Your task to perform on an android device: turn on the 12-hour format for clock Image 0: 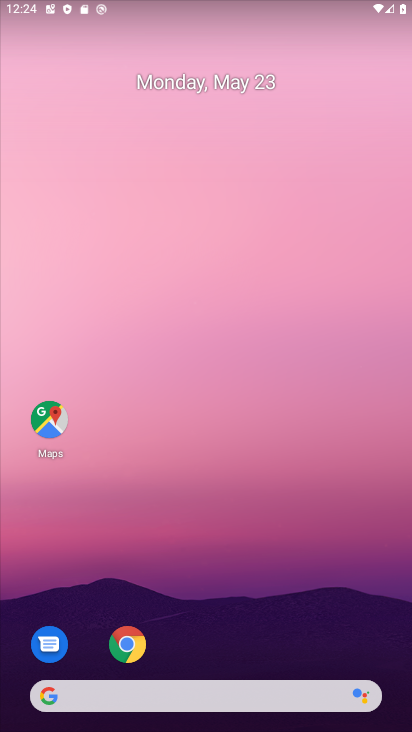
Step 0: drag from (264, 627) to (238, 67)
Your task to perform on an android device: turn on the 12-hour format for clock Image 1: 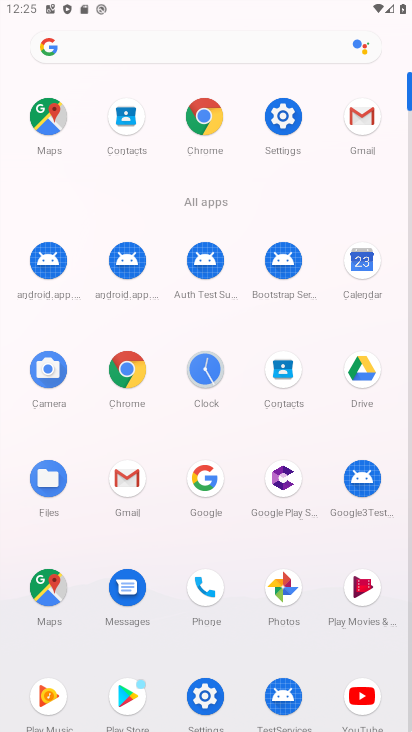
Step 1: click (209, 375)
Your task to perform on an android device: turn on the 12-hour format for clock Image 2: 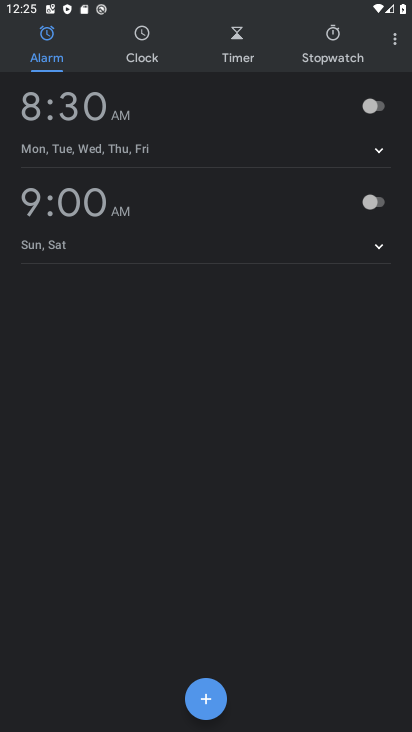
Step 2: click (399, 38)
Your task to perform on an android device: turn on the 12-hour format for clock Image 3: 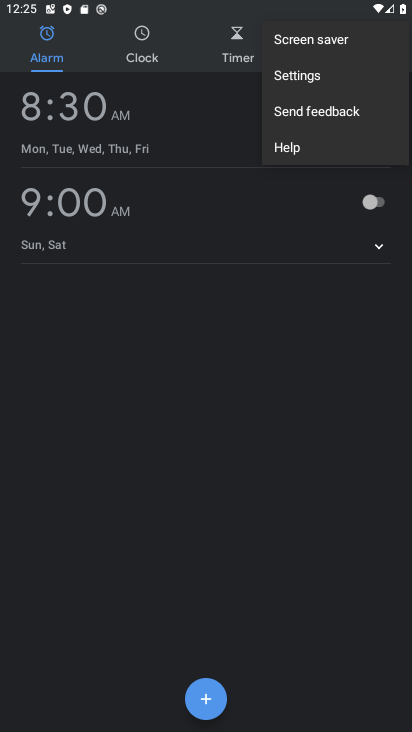
Step 3: click (306, 78)
Your task to perform on an android device: turn on the 12-hour format for clock Image 4: 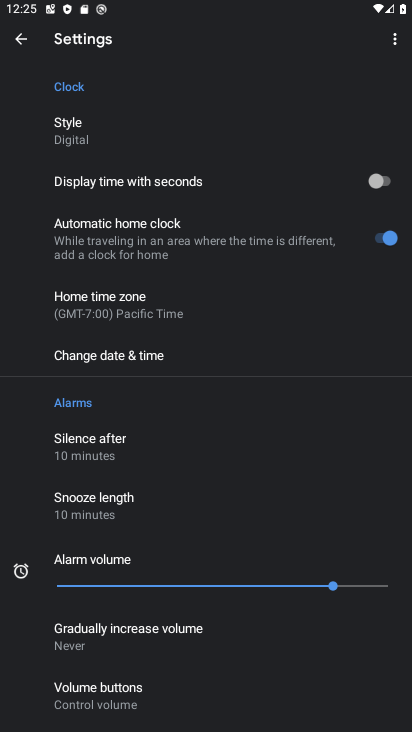
Step 4: click (159, 360)
Your task to perform on an android device: turn on the 12-hour format for clock Image 5: 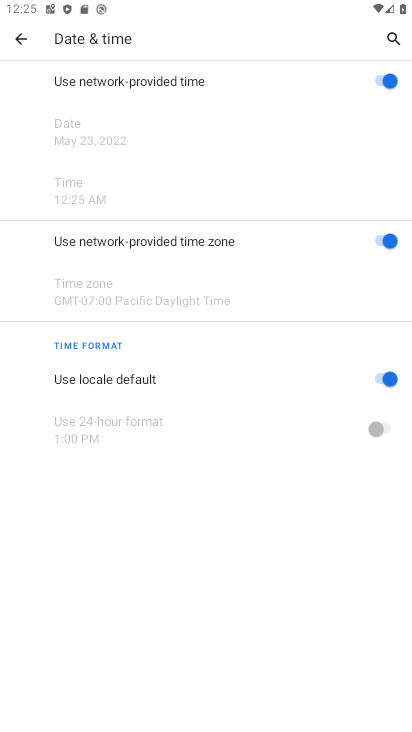
Step 5: task complete